Your task to perform on an android device: open app "Messenger Lite" Image 0: 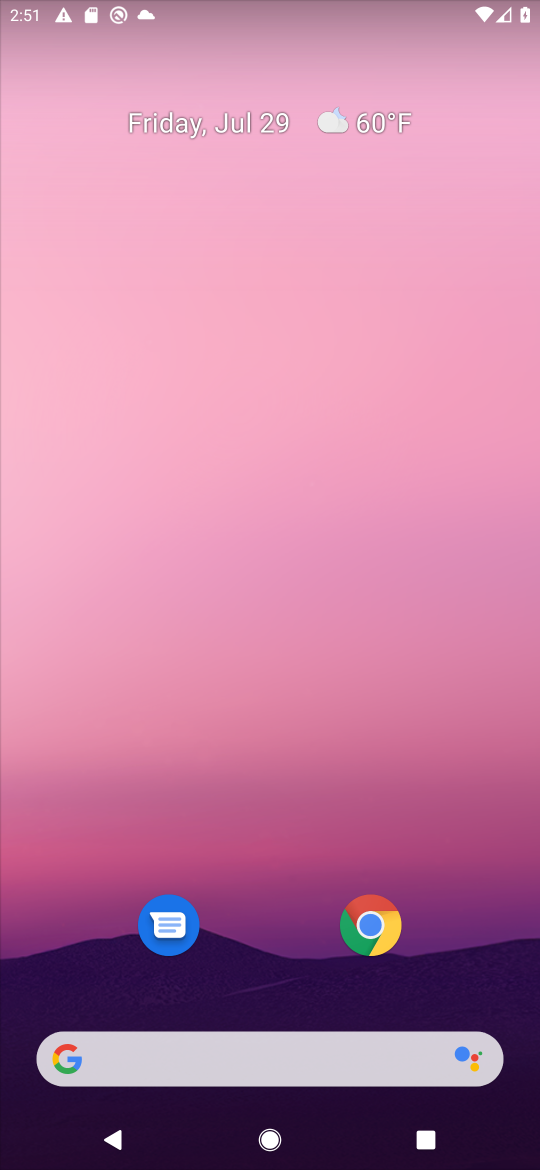
Step 0: drag from (252, 880) to (219, 92)
Your task to perform on an android device: open app "Messenger Lite" Image 1: 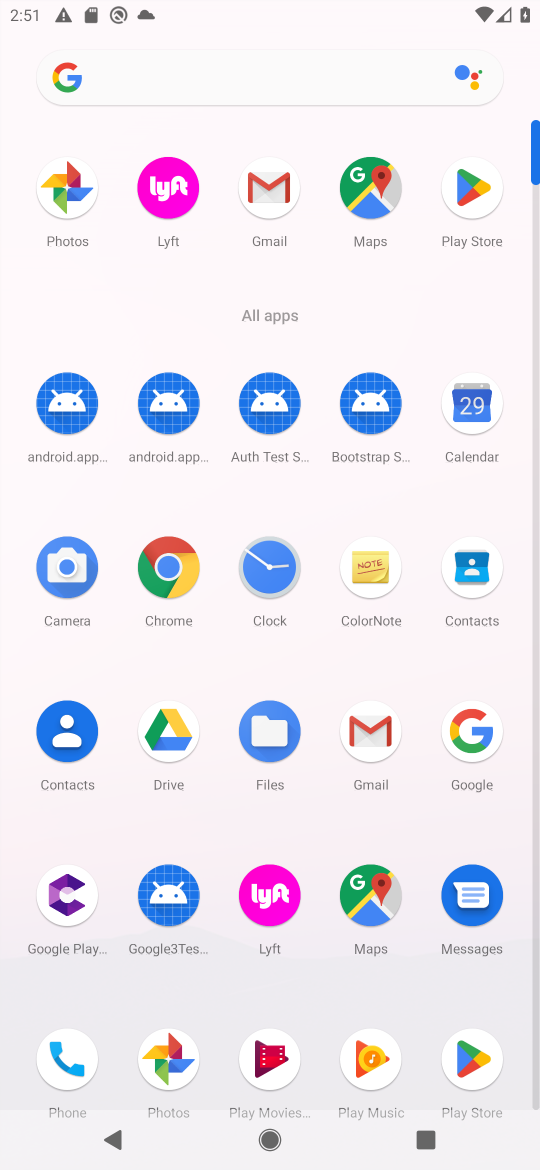
Step 1: click (473, 1065)
Your task to perform on an android device: open app "Messenger Lite" Image 2: 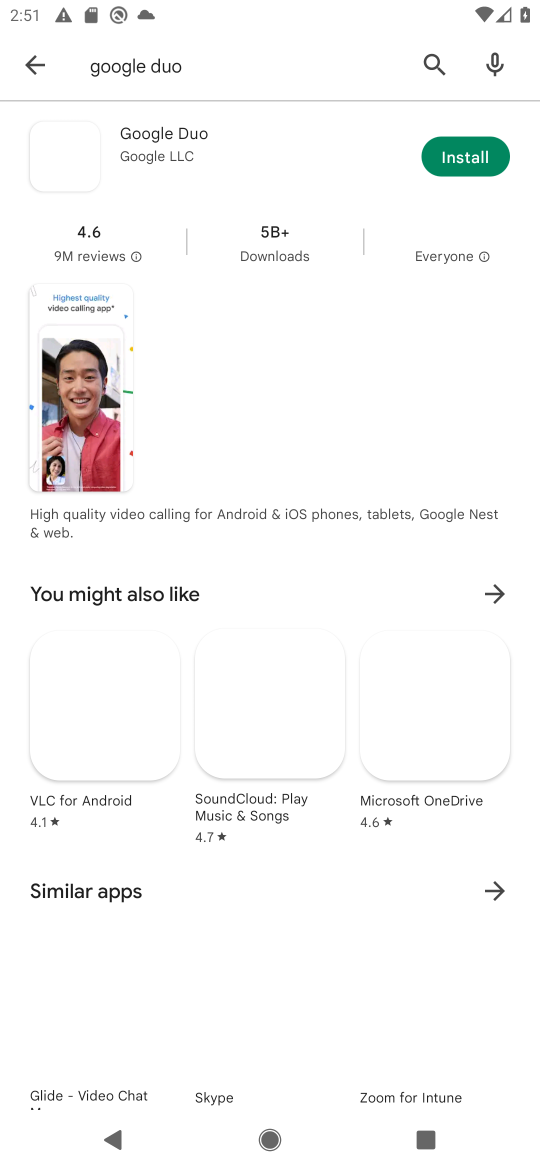
Step 2: click (423, 66)
Your task to perform on an android device: open app "Messenger Lite" Image 3: 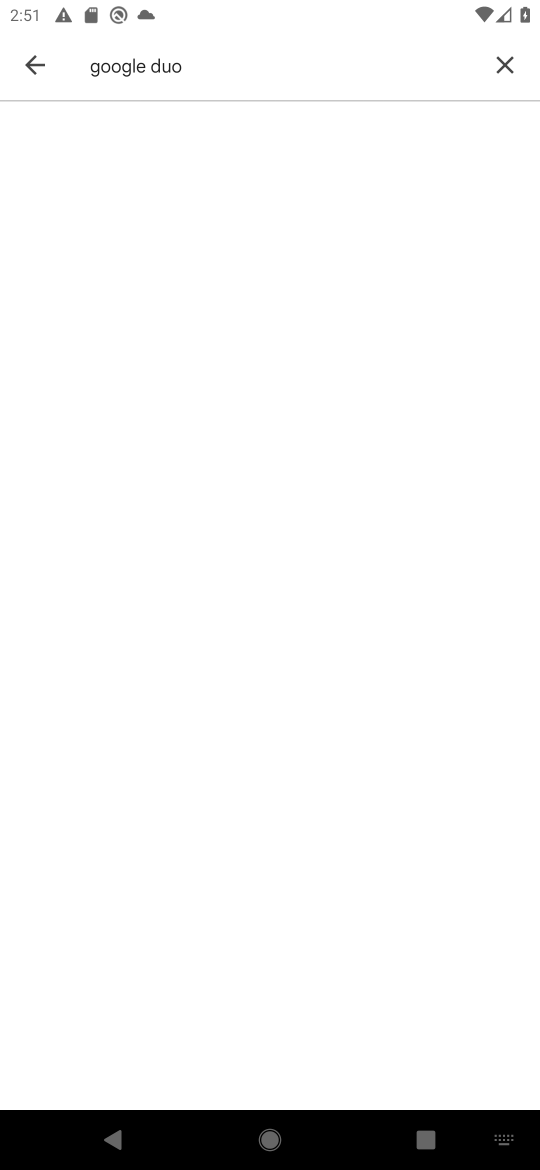
Step 3: click (503, 75)
Your task to perform on an android device: open app "Messenger Lite" Image 4: 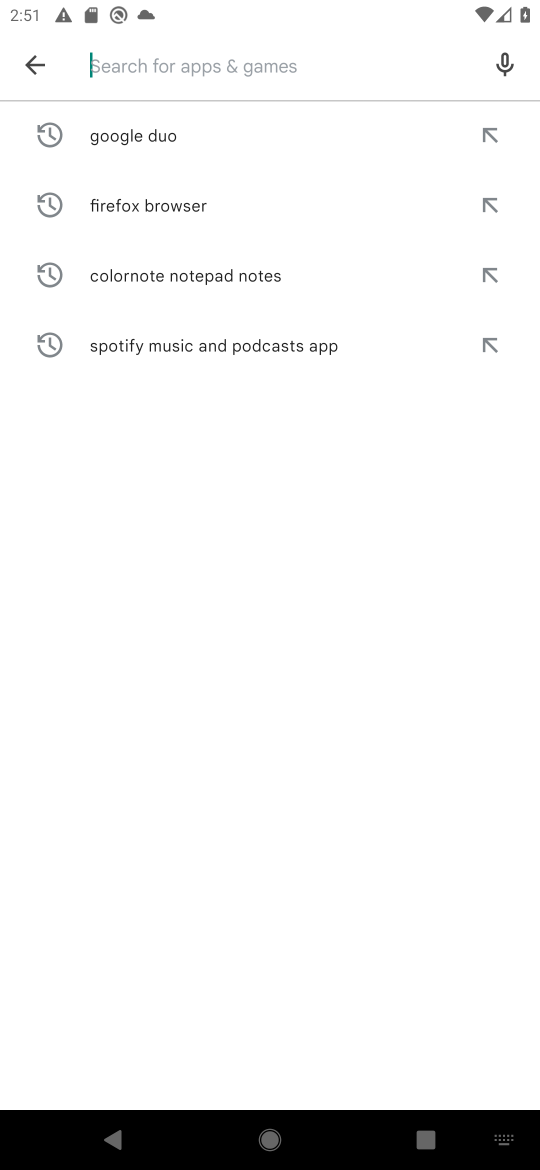
Step 4: type "Messenger Lite"
Your task to perform on an android device: open app "Messenger Lite" Image 5: 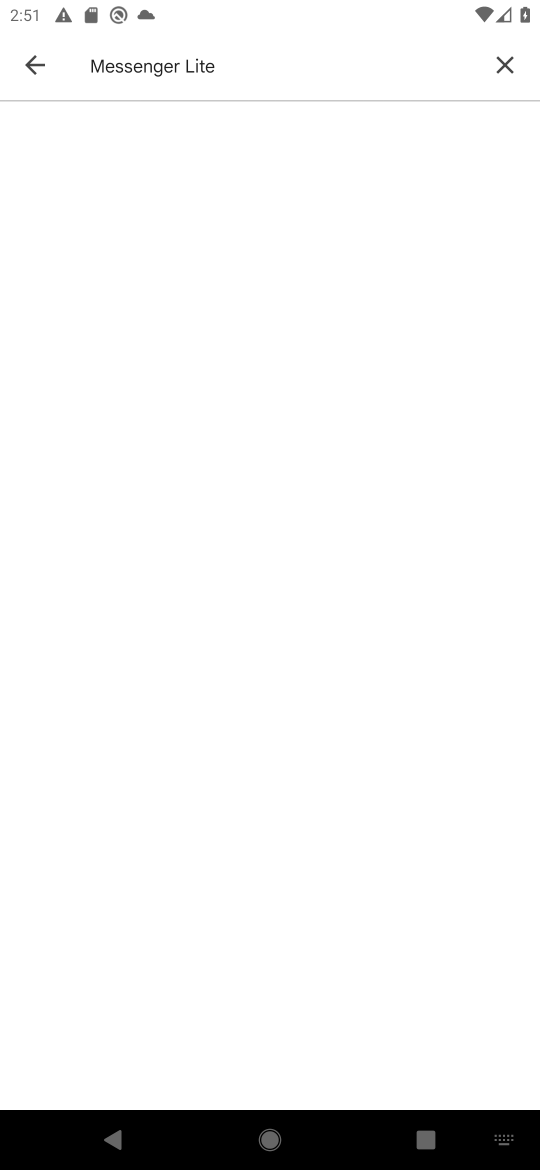
Step 5: click (511, 62)
Your task to perform on an android device: open app "Messenger Lite" Image 6: 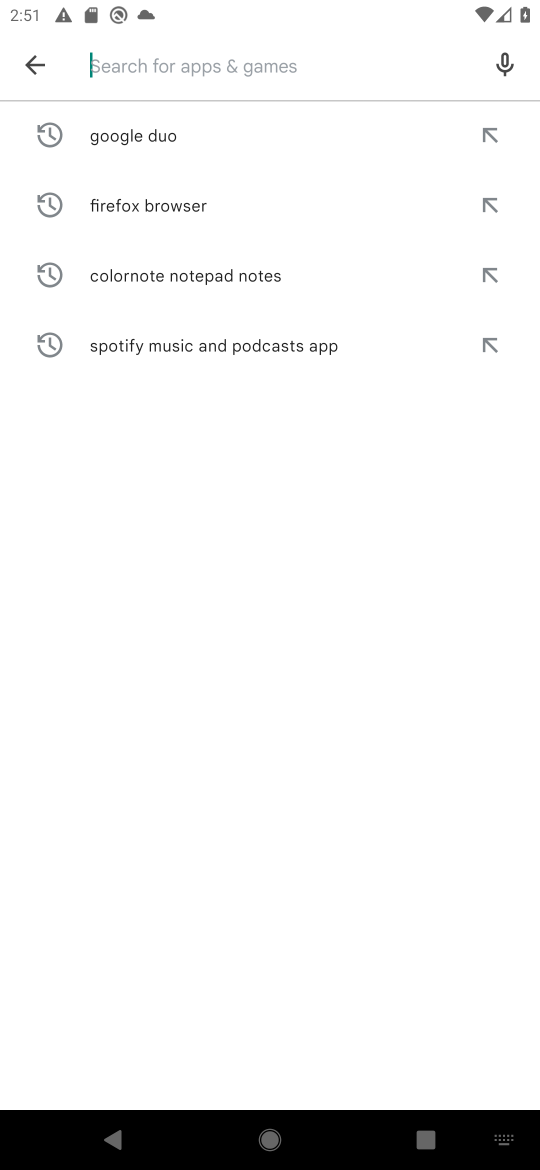
Step 6: click (205, 69)
Your task to perform on an android device: open app "Messenger Lite" Image 7: 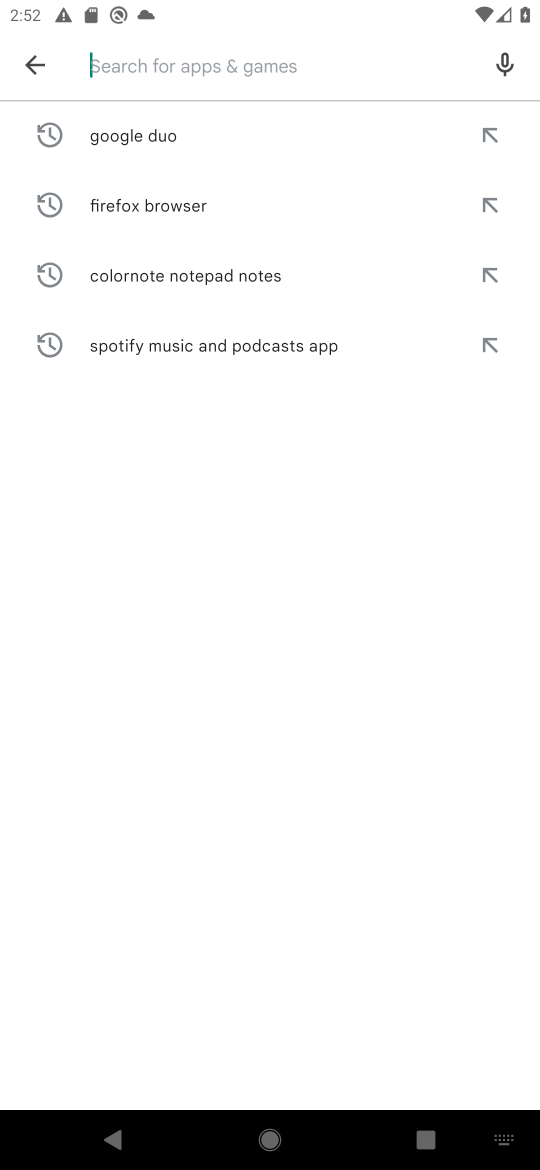
Step 7: type "Messenger Lite"
Your task to perform on an android device: open app "Messenger Lite" Image 8: 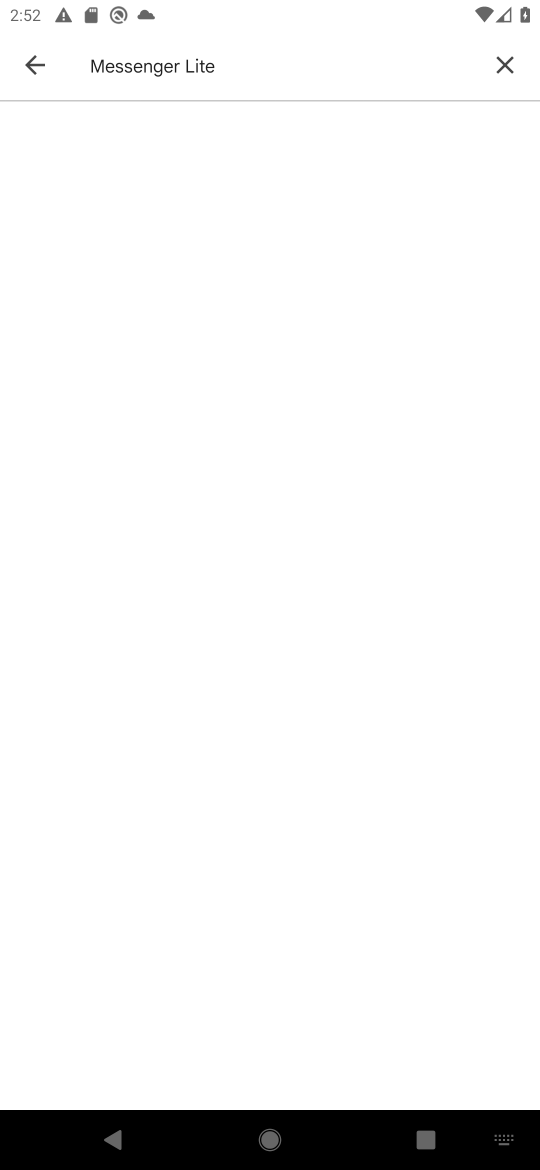
Step 8: task complete